Your task to perform on an android device: Search for Mexican restaurants on Maps Image 0: 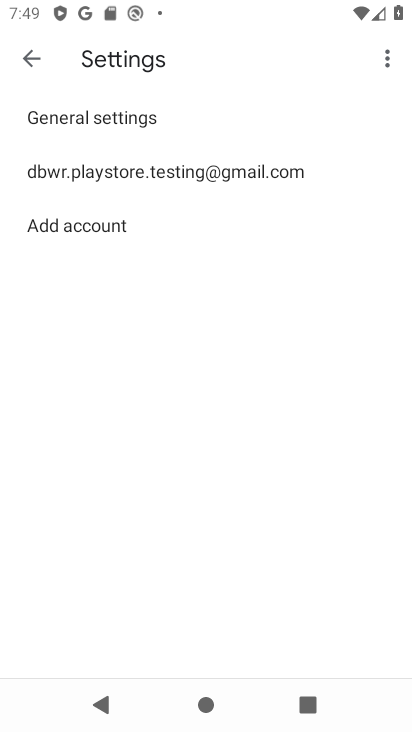
Step 0: press home button
Your task to perform on an android device: Search for Mexican restaurants on Maps Image 1: 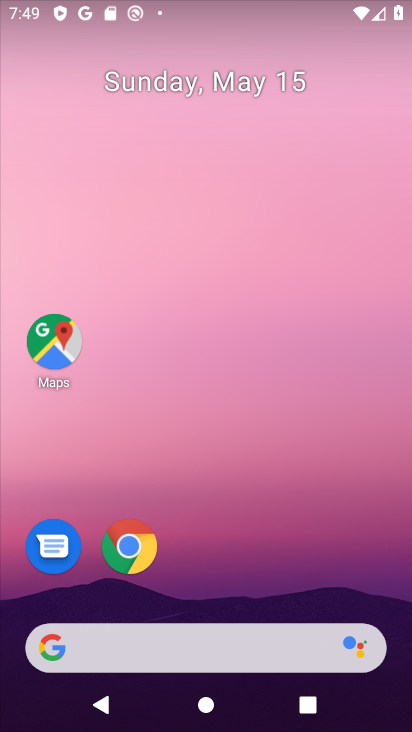
Step 1: click (39, 355)
Your task to perform on an android device: Search for Mexican restaurants on Maps Image 2: 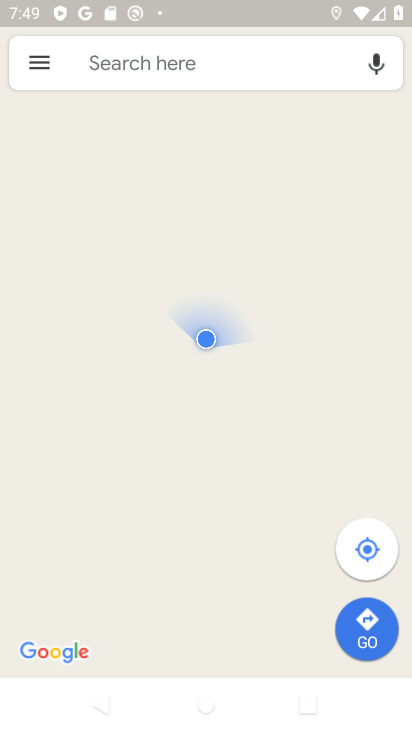
Step 2: click (211, 69)
Your task to perform on an android device: Search for Mexican restaurants on Maps Image 3: 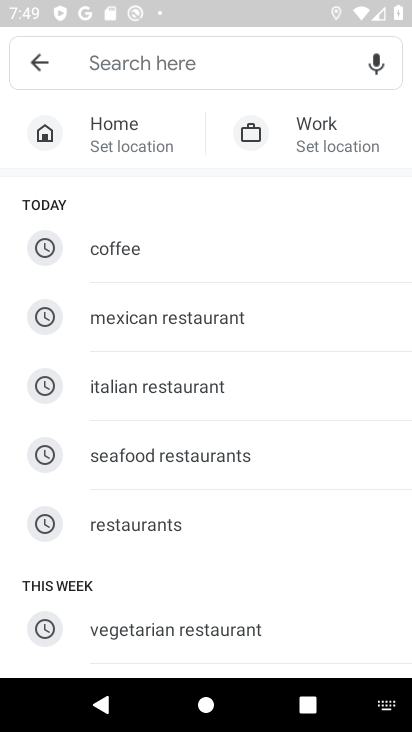
Step 3: click (165, 312)
Your task to perform on an android device: Search for Mexican restaurants on Maps Image 4: 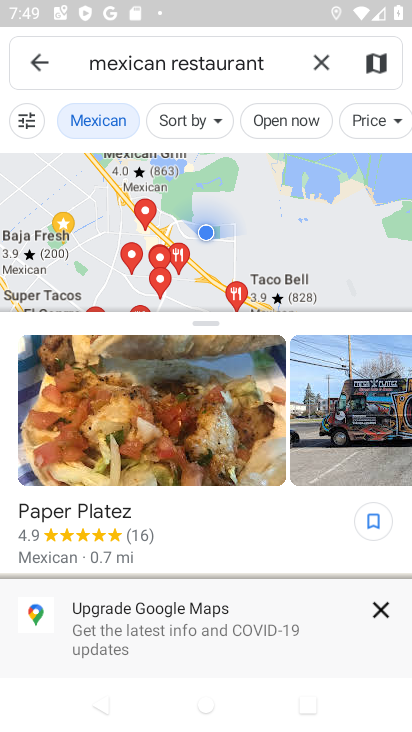
Step 4: task complete